Your task to perform on an android device: check android version Image 0: 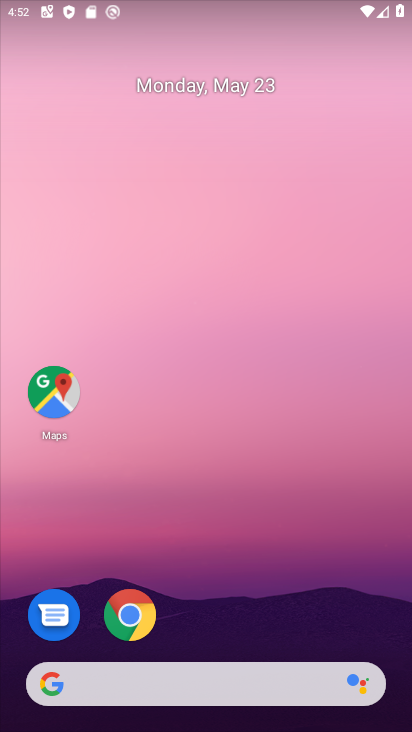
Step 0: drag from (262, 437) to (247, 127)
Your task to perform on an android device: check android version Image 1: 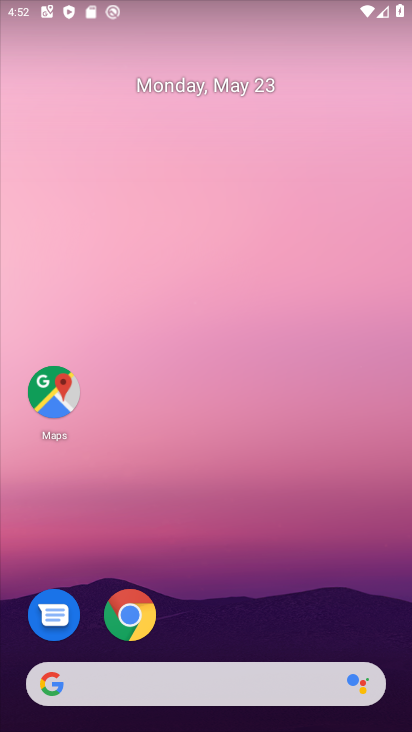
Step 1: drag from (218, 551) to (271, 51)
Your task to perform on an android device: check android version Image 2: 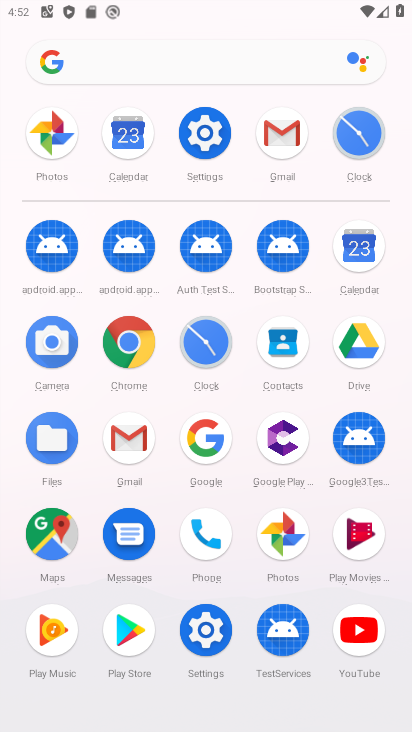
Step 2: click (209, 127)
Your task to perform on an android device: check android version Image 3: 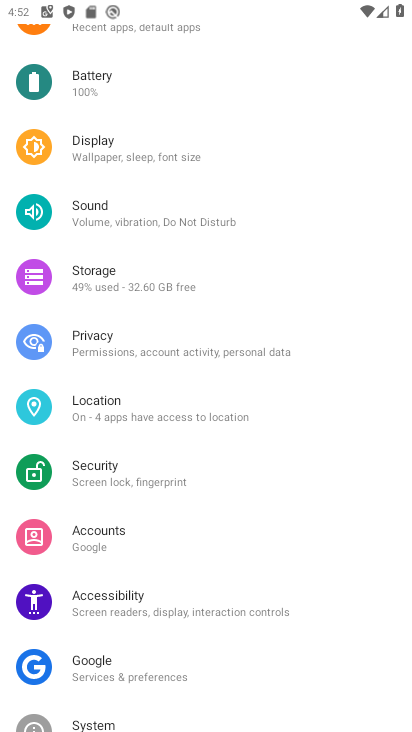
Step 3: drag from (147, 637) to (247, 67)
Your task to perform on an android device: check android version Image 4: 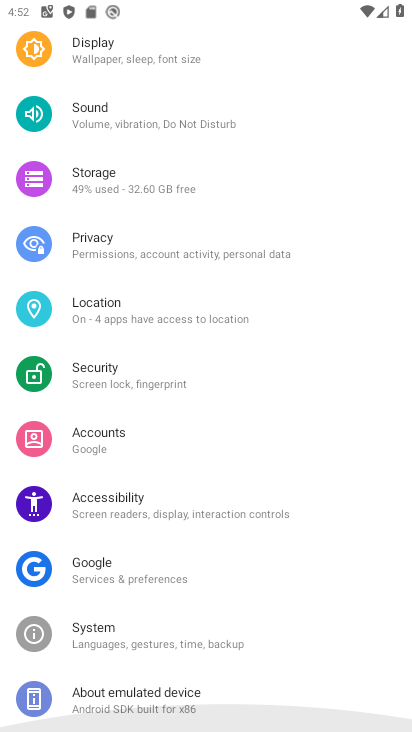
Step 4: drag from (173, 606) to (217, 124)
Your task to perform on an android device: check android version Image 5: 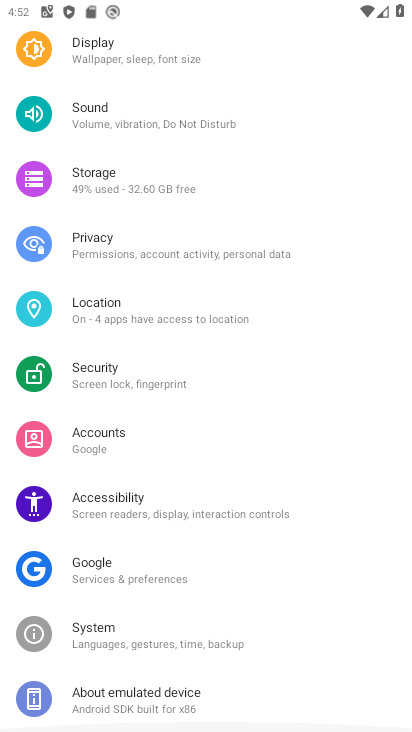
Step 5: click (121, 710)
Your task to perform on an android device: check android version Image 6: 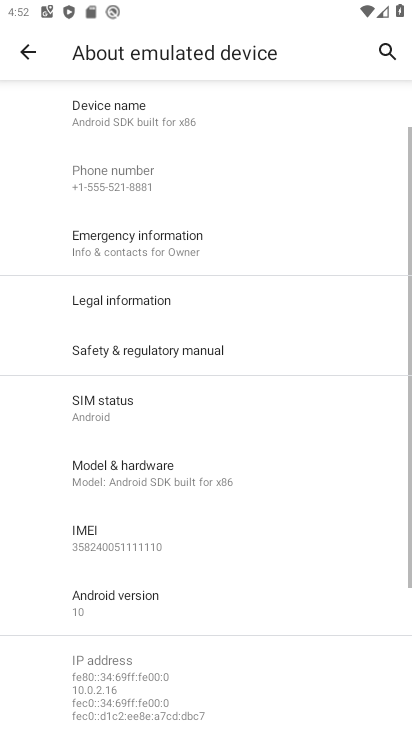
Step 6: click (141, 601)
Your task to perform on an android device: check android version Image 7: 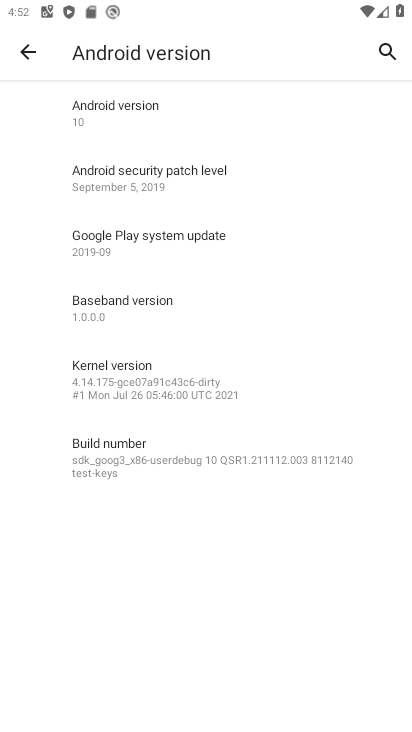
Step 7: click (135, 109)
Your task to perform on an android device: check android version Image 8: 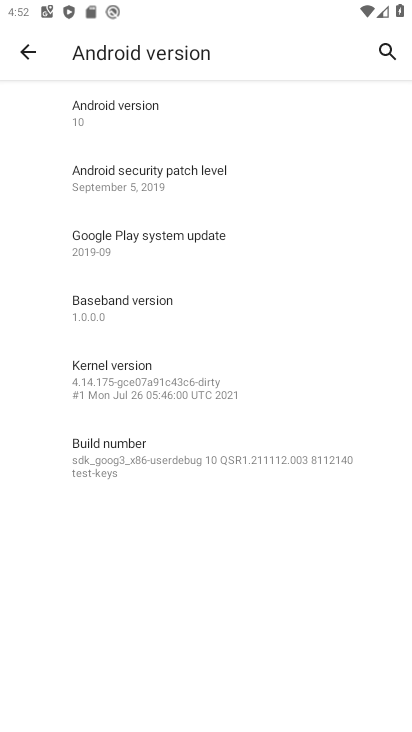
Step 8: task complete